Your task to perform on an android device: Search for seafood restaurants on Google Maps Image 0: 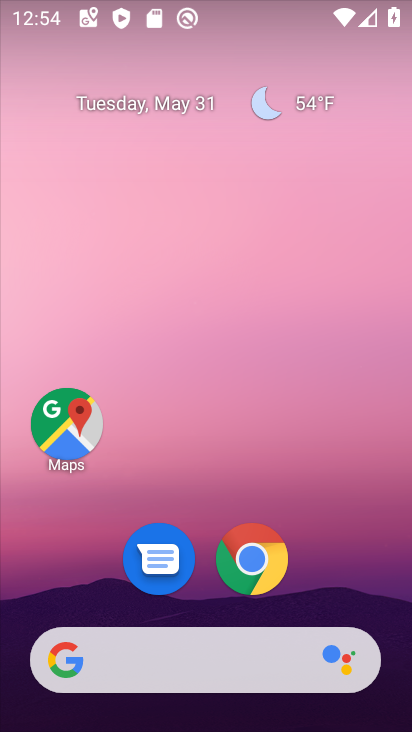
Step 0: click (77, 420)
Your task to perform on an android device: Search for seafood restaurants on Google Maps Image 1: 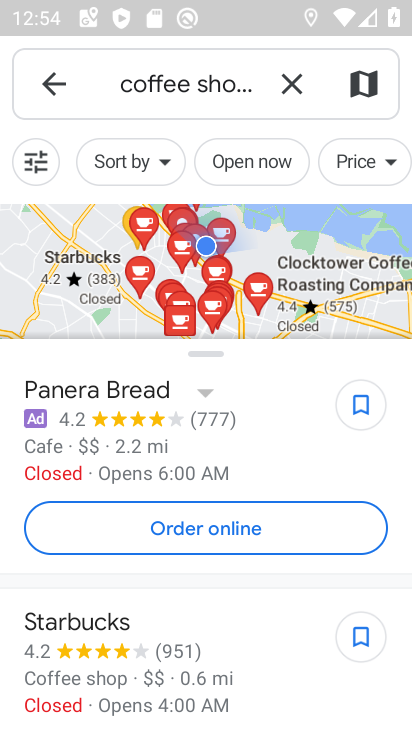
Step 1: click (287, 78)
Your task to perform on an android device: Search for seafood restaurants on Google Maps Image 2: 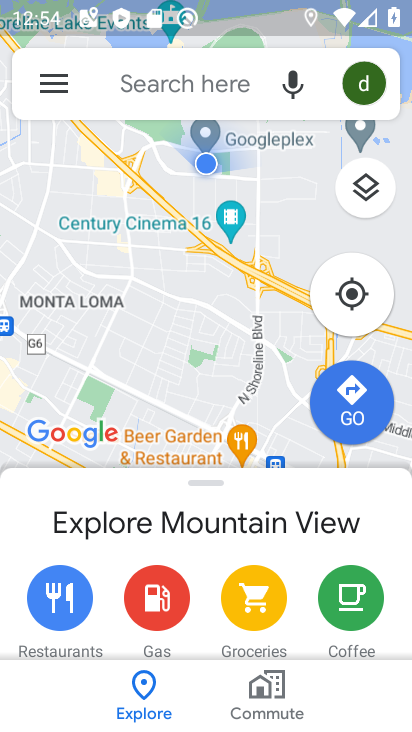
Step 2: click (227, 79)
Your task to perform on an android device: Search for seafood restaurants on Google Maps Image 3: 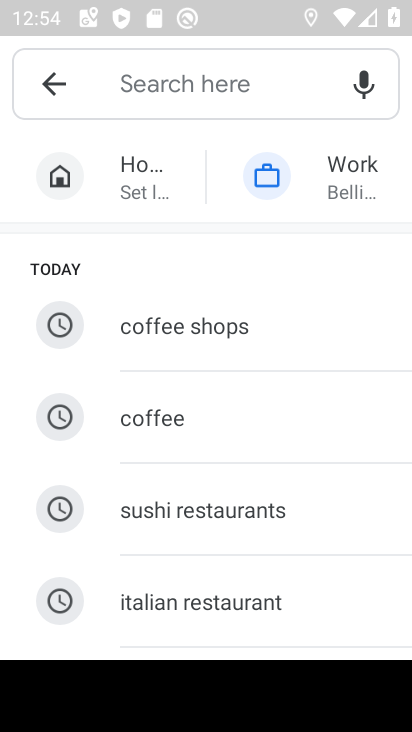
Step 3: type "seafood restaurants"
Your task to perform on an android device: Search for seafood restaurants on Google Maps Image 4: 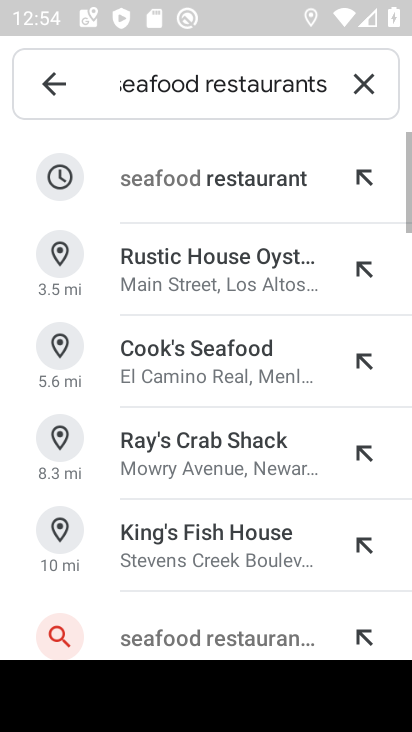
Step 4: click (282, 187)
Your task to perform on an android device: Search for seafood restaurants on Google Maps Image 5: 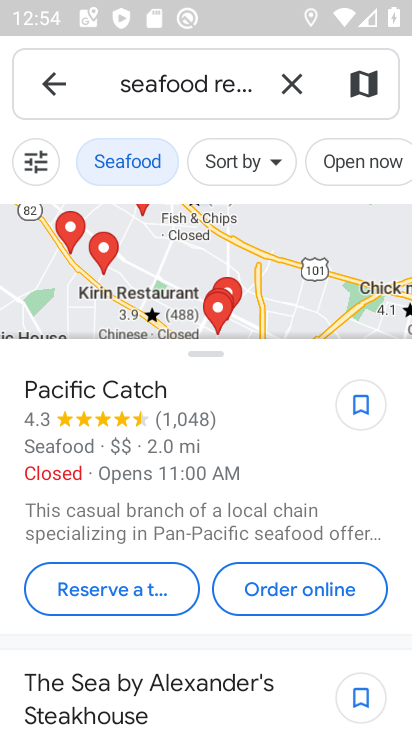
Step 5: task complete